Your task to perform on an android device: see sites visited before in the chrome app Image 0: 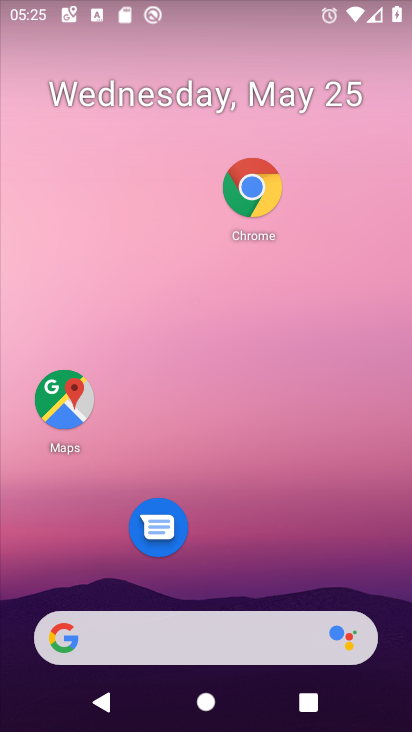
Step 0: drag from (284, 612) to (353, 105)
Your task to perform on an android device: see sites visited before in the chrome app Image 1: 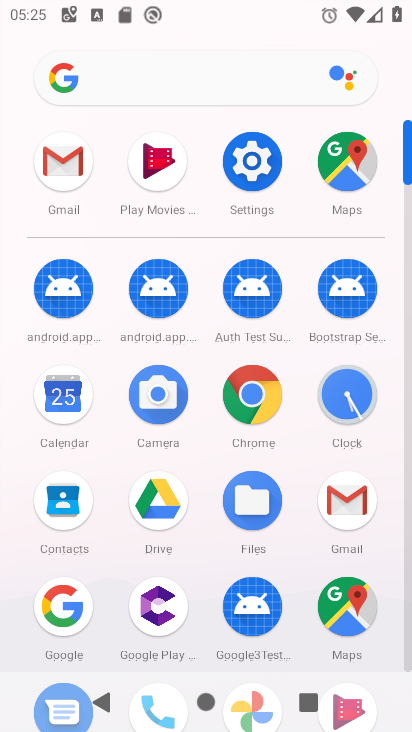
Step 1: click (247, 407)
Your task to perform on an android device: see sites visited before in the chrome app Image 2: 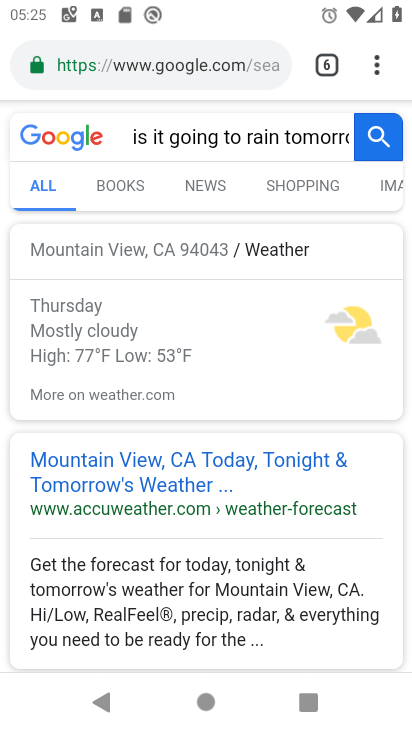
Step 2: click (371, 68)
Your task to perform on an android device: see sites visited before in the chrome app Image 3: 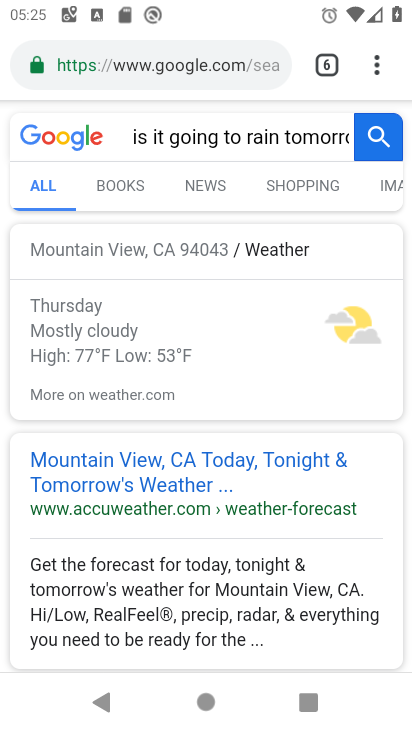
Step 3: task complete